Your task to perform on an android device: Open battery settings Image 0: 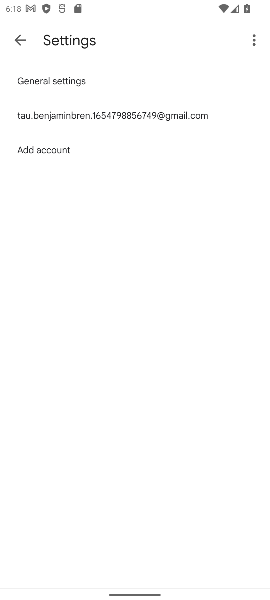
Step 0: press home button
Your task to perform on an android device: Open battery settings Image 1: 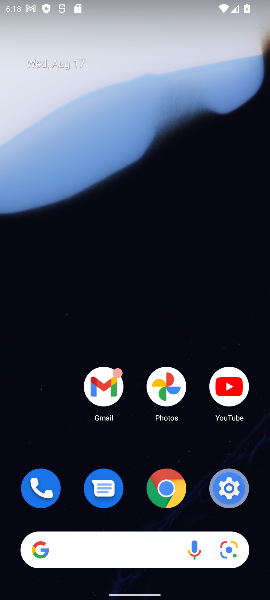
Step 1: drag from (151, 462) to (145, 1)
Your task to perform on an android device: Open battery settings Image 2: 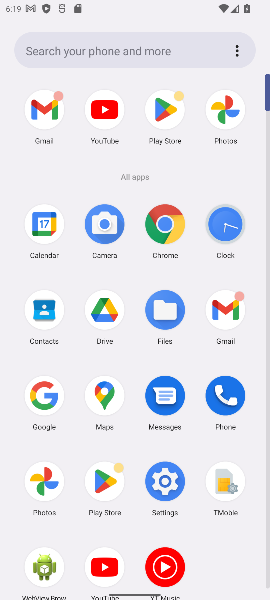
Step 2: click (176, 478)
Your task to perform on an android device: Open battery settings Image 3: 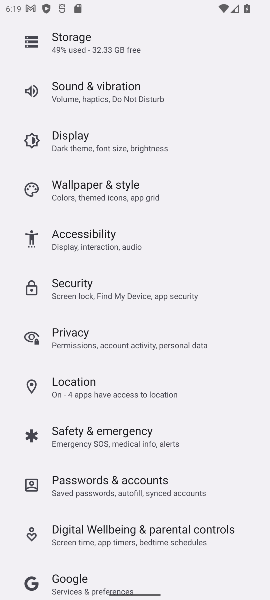
Step 3: drag from (109, 272) to (177, 561)
Your task to perform on an android device: Open battery settings Image 4: 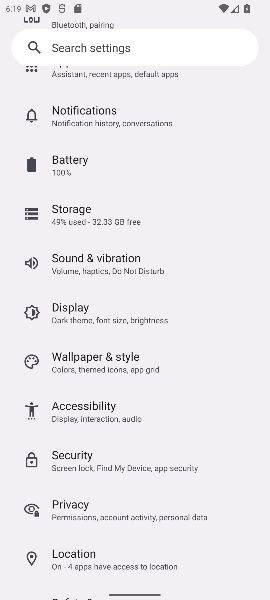
Step 4: click (44, 171)
Your task to perform on an android device: Open battery settings Image 5: 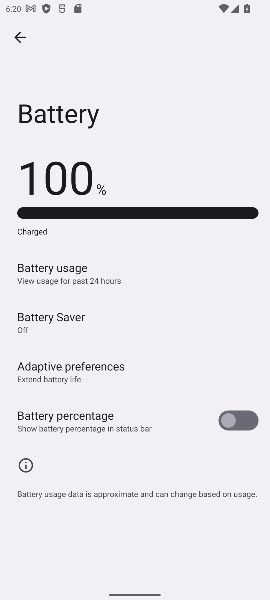
Step 5: task complete